Your task to perform on an android device: Clear the shopping cart on ebay. Add dell xps to the cart on ebay Image 0: 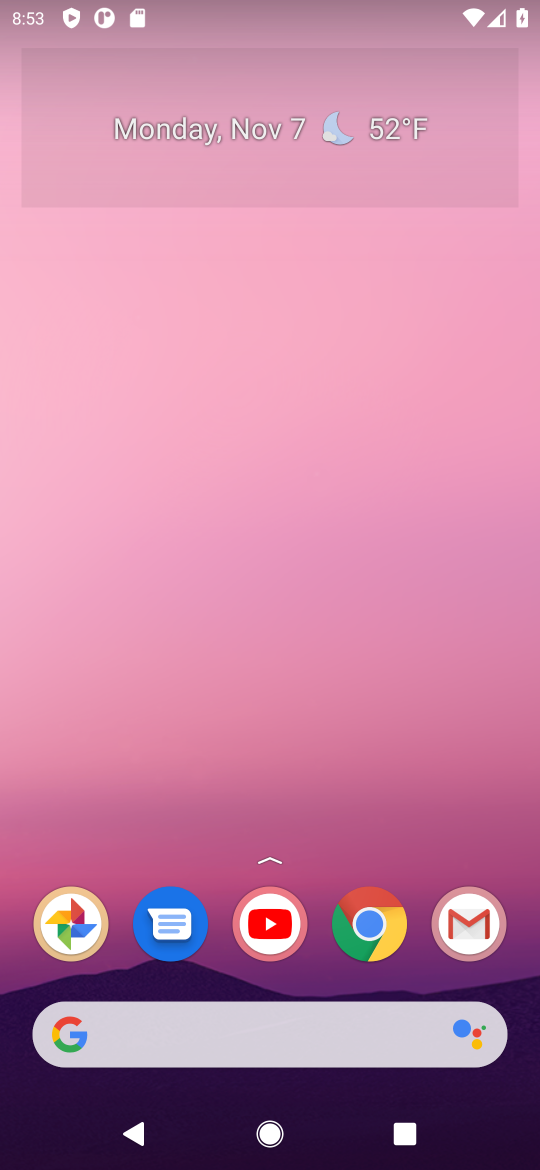
Step 0: click (374, 930)
Your task to perform on an android device: Clear the shopping cart on ebay. Add dell xps to the cart on ebay Image 1: 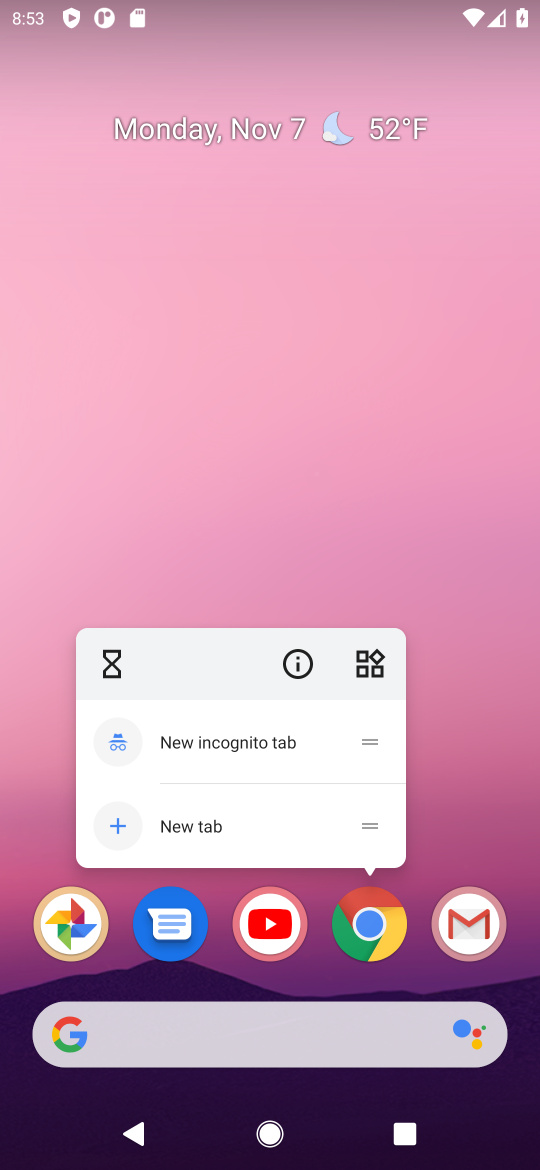
Step 1: click (357, 910)
Your task to perform on an android device: Clear the shopping cart on ebay. Add dell xps to the cart on ebay Image 2: 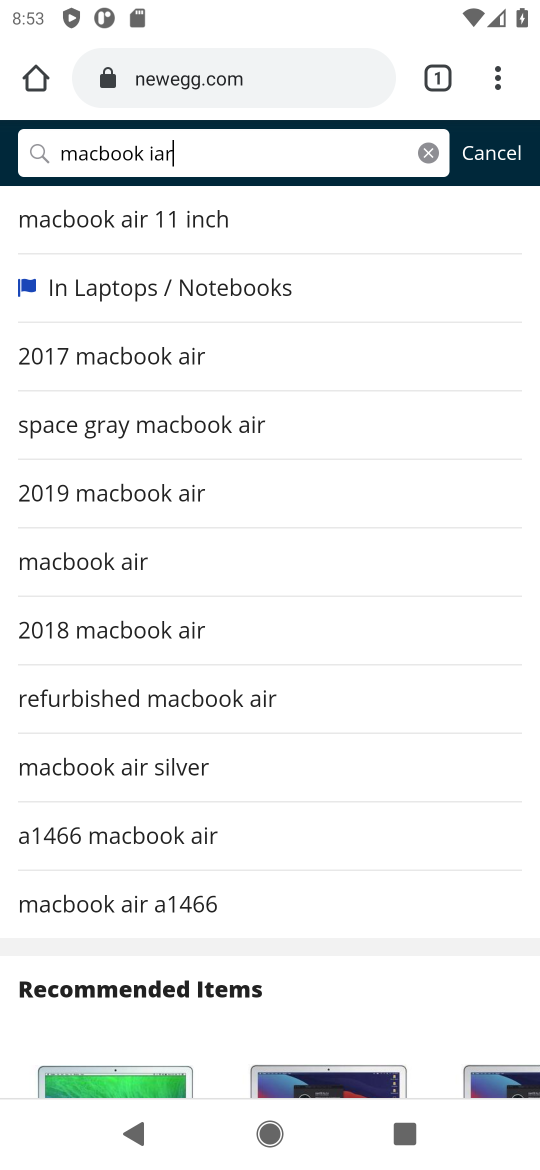
Step 2: click (243, 72)
Your task to perform on an android device: Clear the shopping cart on ebay. Add dell xps to the cart on ebay Image 3: 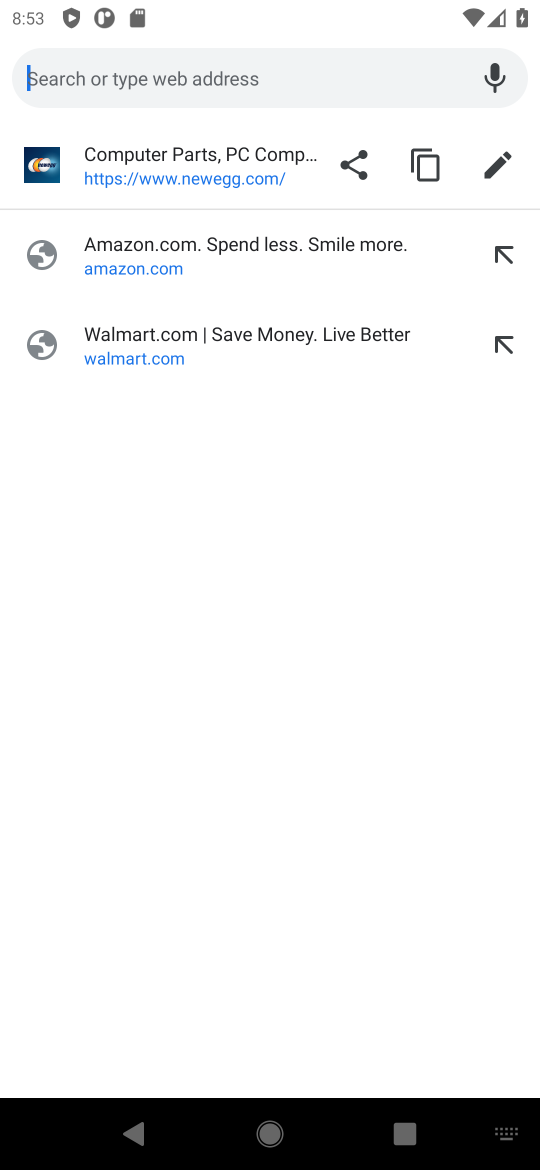
Step 3: type "ebay.com"
Your task to perform on an android device: Clear the shopping cart on ebay. Add dell xps to the cart on ebay Image 4: 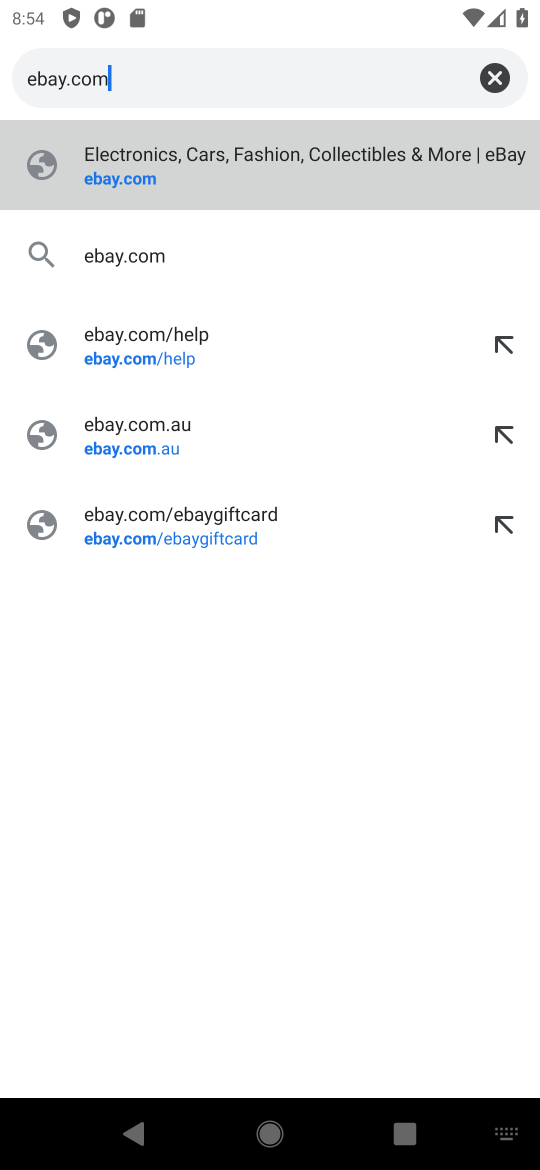
Step 4: click (136, 167)
Your task to perform on an android device: Clear the shopping cart on ebay. Add dell xps to the cart on ebay Image 5: 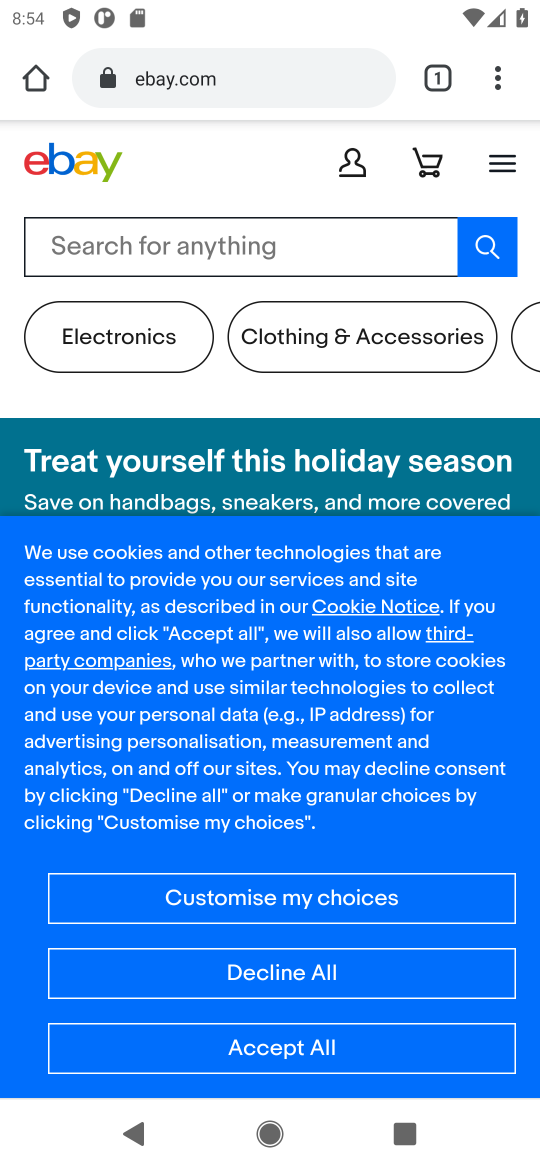
Step 5: click (355, 241)
Your task to perform on an android device: Clear the shopping cart on ebay. Add dell xps to the cart on ebay Image 6: 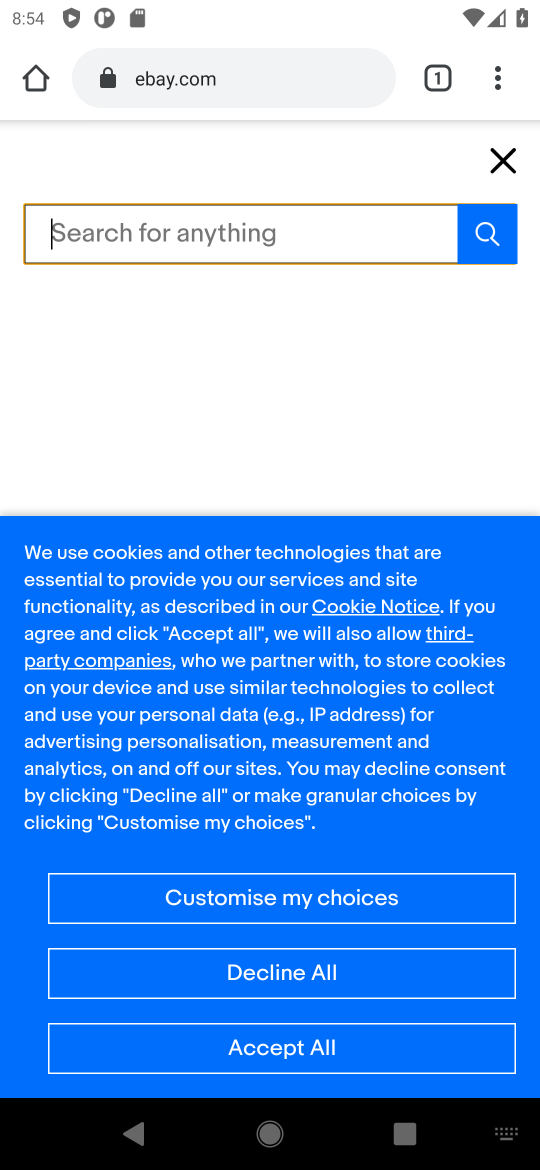
Step 6: type "dell xps"
Your task to perform on an android device: Clear the shopping cart on ebay. Add dell xps to the cart on ebay Image 7: 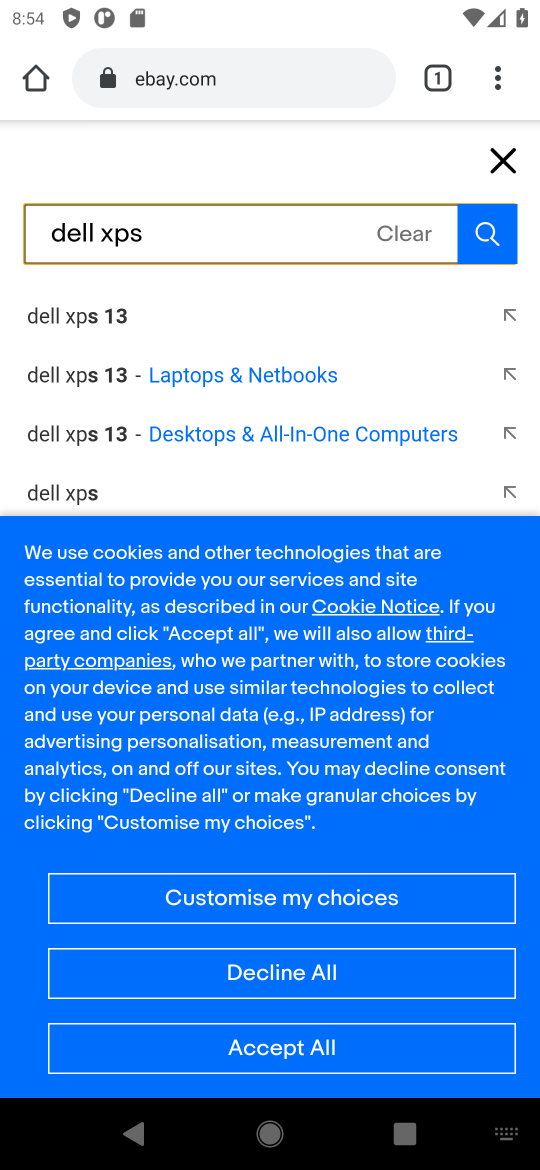
Step 7: press enter
Your task to perform on an android device: Clear the shopping cart on ebay. Add dell xps to the cart on ebay Image 8: 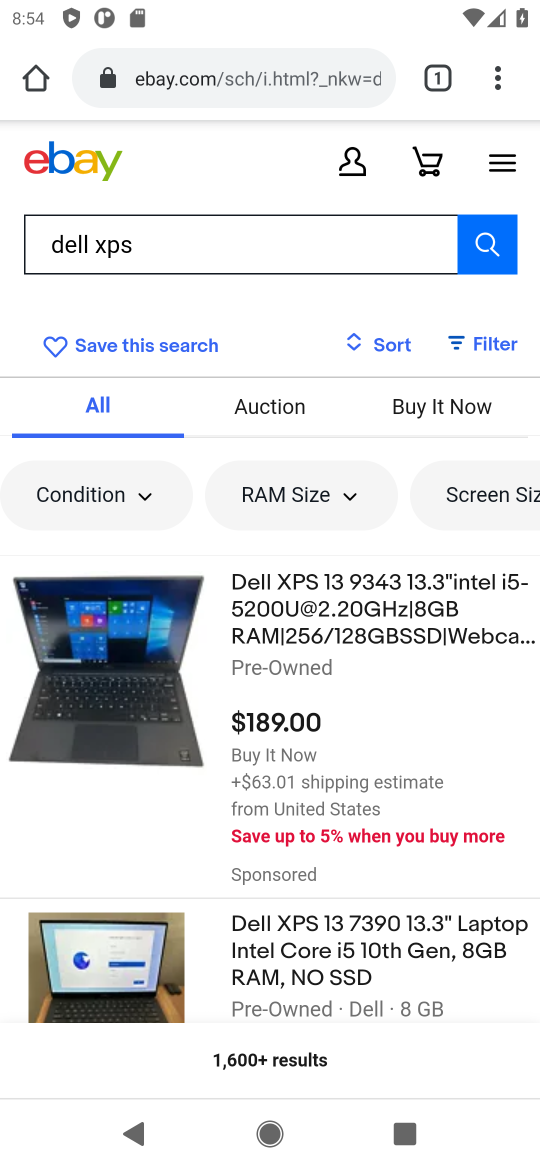
Step 8: click (95, 653)
Your task to perform on an android device: Clear the shopping cart on ebay. Add dell xps to the cart on ebay Image 9: 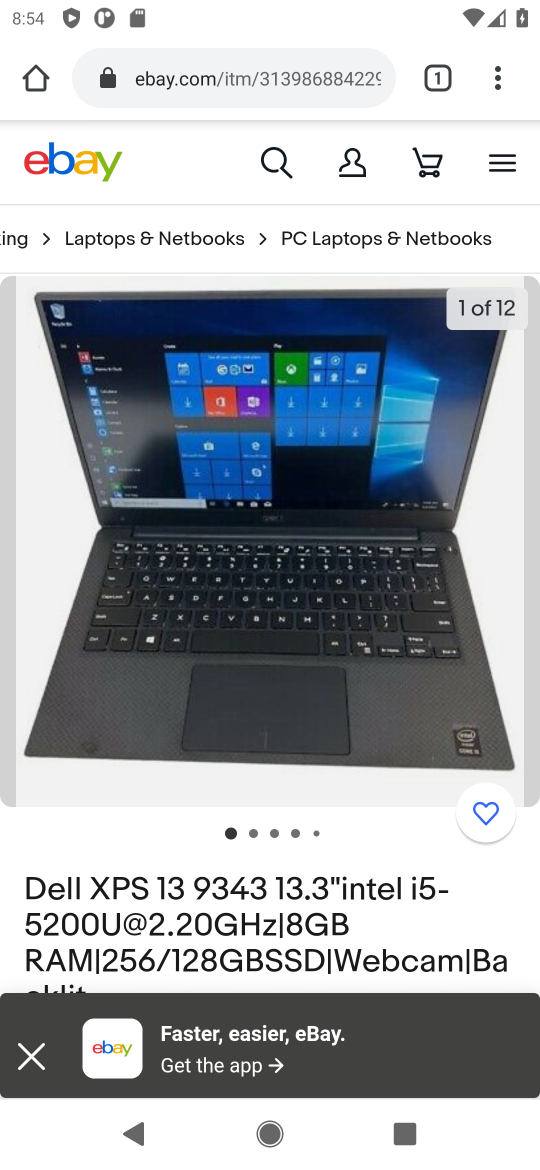
Step 9: drag from (227, 865) to (155, 209)
Your task to perform on an android device: Clear the shopping cart on ebay. Add dell xps to the cart on ebay Image 10: 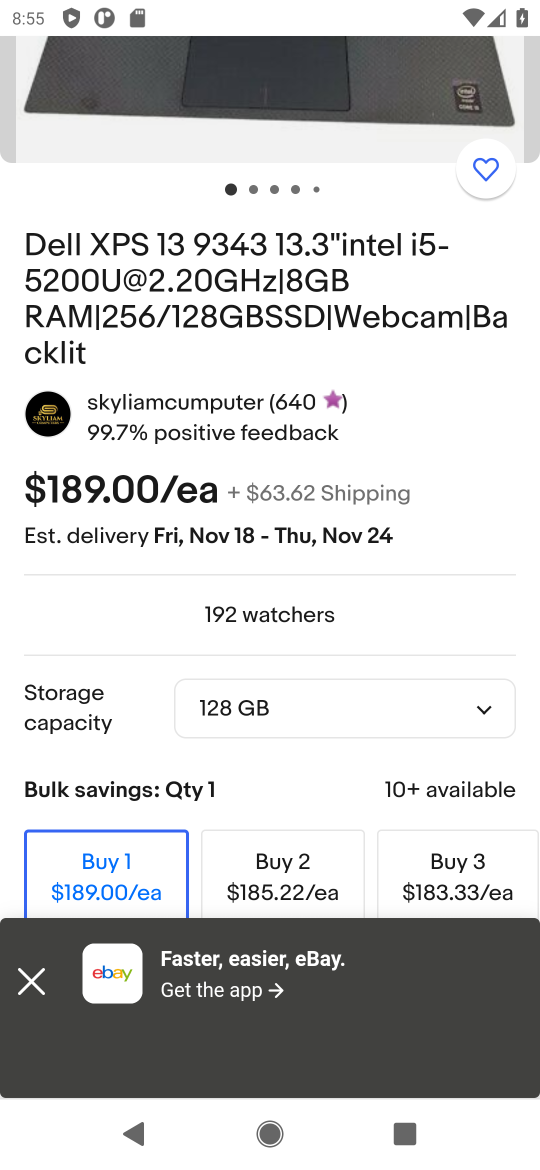
Step 10: drag from (363, 624) to (238, 3)
Your task to perform on an android device: Clear the shopping cart on ebay. Add dell xps to the cart on ebay Image 11: 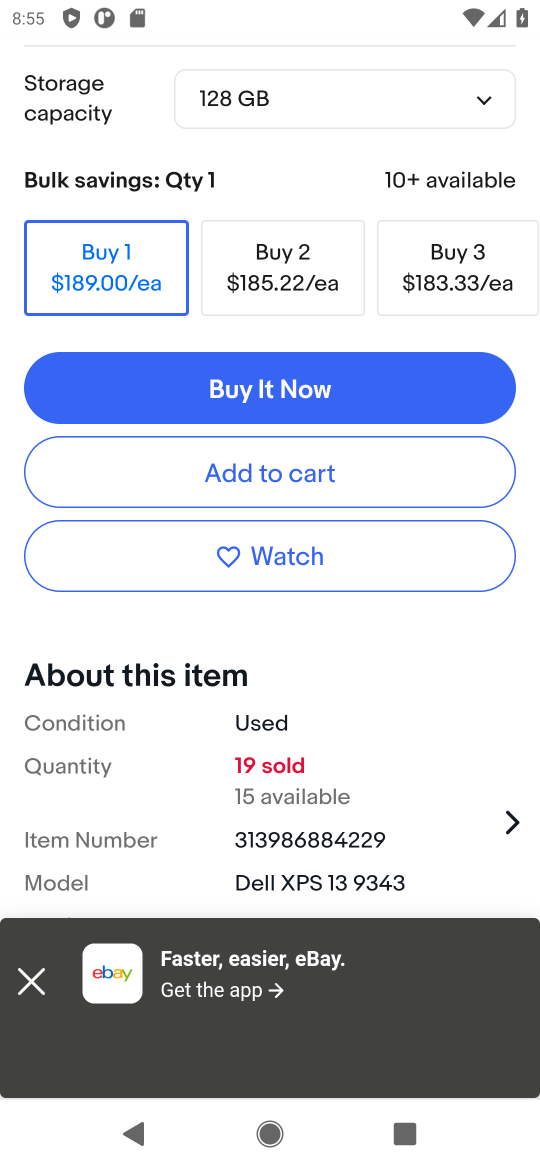
Step 11: click (320, 485)
Your task to perform on an android device: Clear the shopping cart on ebay. Add dell xps to the cart on ebay Image 12: 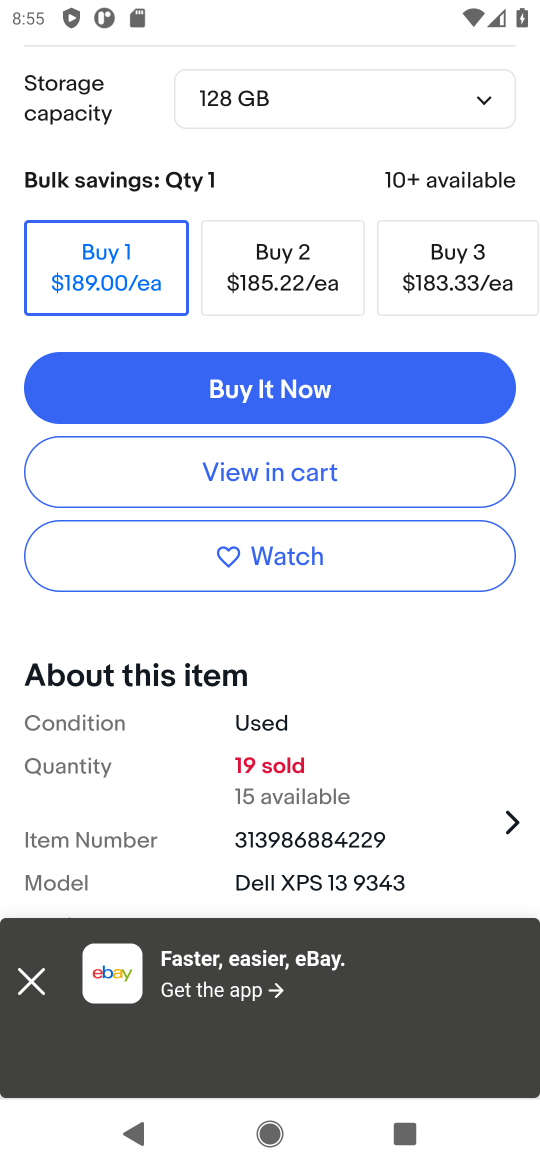
Step 12: task complete